Your task to perform on an android device: stop showing notifications on the lock screen Image 0: 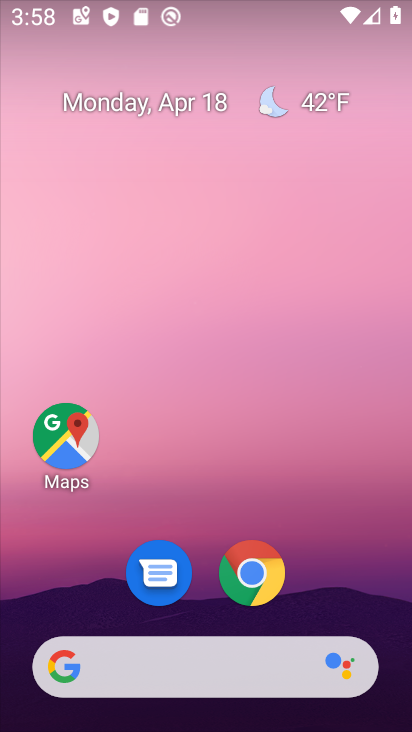
Step 0: drag from (224, 592) to (235, 236)
Your task to perform on an android device: stop showing notifications on the lock screen Image 1: 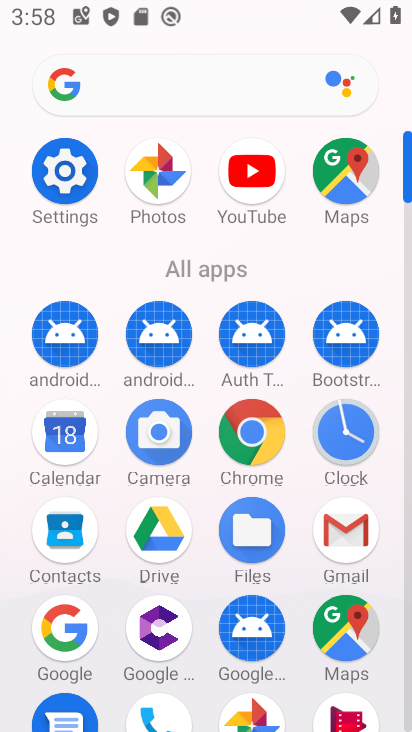
Step 1: click (67, 170)
Your task to perform on an android device: stop showing notifications on the lock screen Image 2: 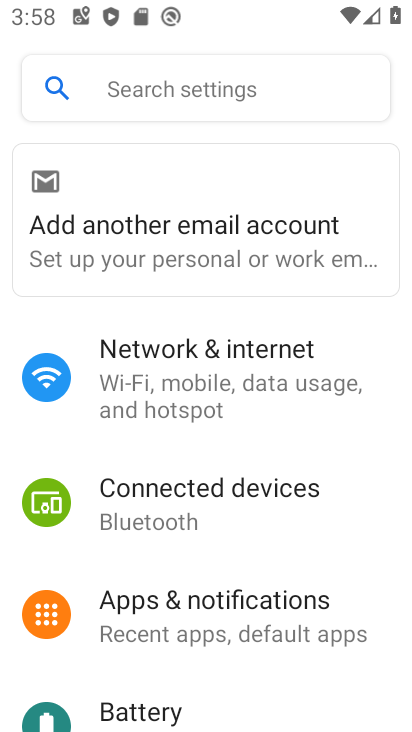
Step 2: drag from (209, 701) to (201, 380)
Your task to perform on an android device: stop showing notifications on the lock screen Image 3: 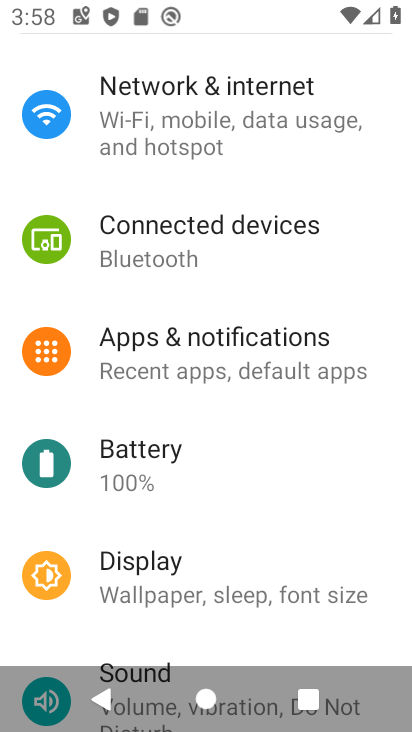
Step 3: drag from (234, 640) to (246, 361)
Your task to perform on an android device: stop showing notifications on the lock screen Image 4: 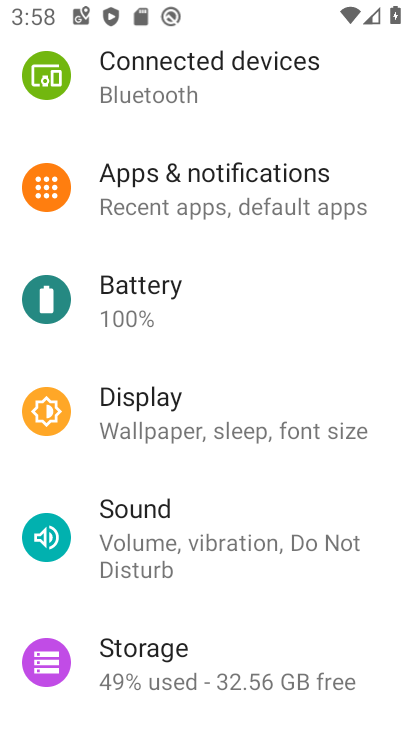
Step 4: drag from (159, 708) to (203, 390)
Your task to perform on an android device: stop showing notifications on the lock screen Image 5: 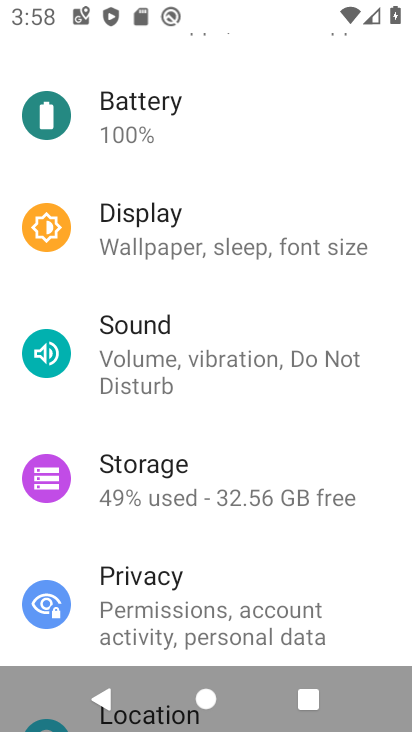
Step 5: click (164, 596)
Your task to perform on an android device: stop showing notifications on the lock screen Image 6: 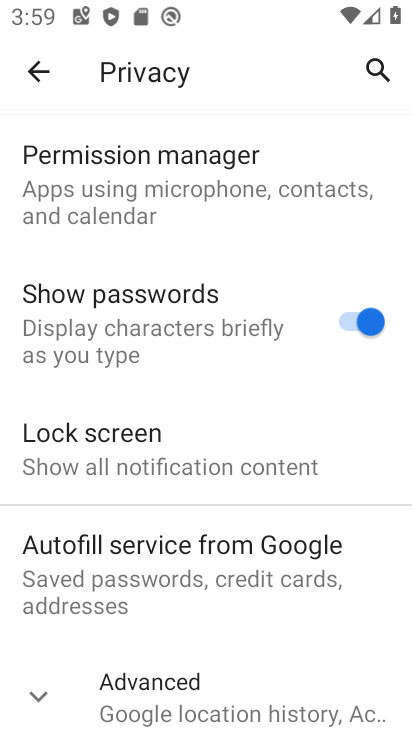
Step 6: click (150, 451)
Your task to perform on an android device: stop showing notifications on the lock screen Image 7: 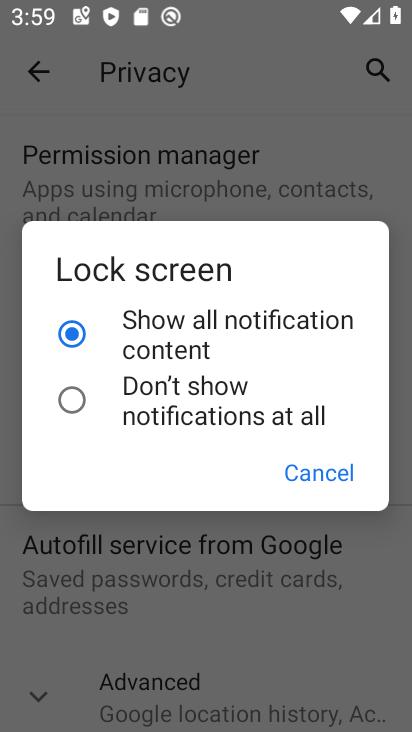
Step 7: task complete